Your task to perform on an android device: Clear all items from cart on walmart. Search for asus rog on walmart, select the first entry, add it to the cart, then select checkout. Image 0: 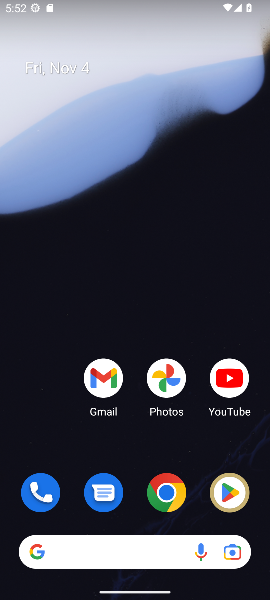
Step 0: drag from (132, 461) to (150, 55)
Your task to perform on an android device: Clear all items from cart on walmart. Search for asus rog on walmart, select the first entry, add it to the cart, then select checkout. Image 1: 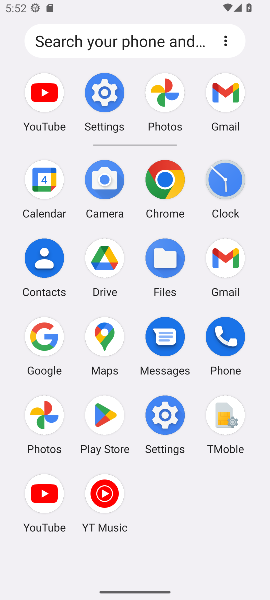
Step 1: click (163, 176)
Your task to perform on an android device: Clear all items from cart on walmart. Search for asus rog on walmart, select the first entry, add it to the cart, then select checkout. Image 2: 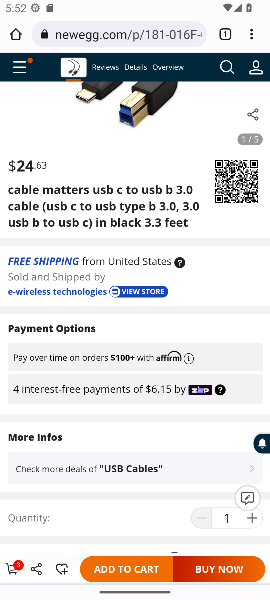
Step 2: click (123, 33)
Your task to perform on an android device: Clear all items from cart on walmart. Search for asus rog on walmart, select the first entry, add it to the cart, then select checkout. Image 3: 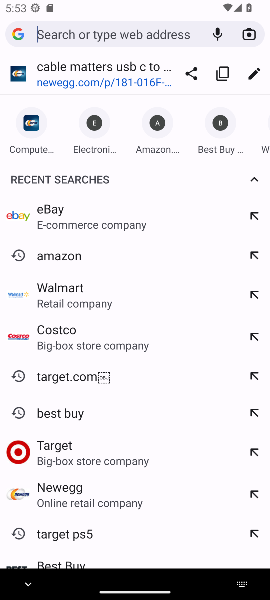
Step 3: type "walmart.com"
Your task to perform on an android device: Clear all items from cart on walmart. Search for asus rog on walmart, select the first entry, add it to the cart, then select checkout. Image 4: 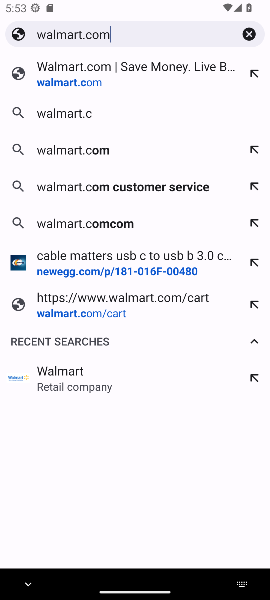
Step 4: press enter
Your task to perform on an android device: Clear all items from cart on walmart. Search for asus rog on walmart, select the first entry, add it to the cart, then select checkout. Image 5: 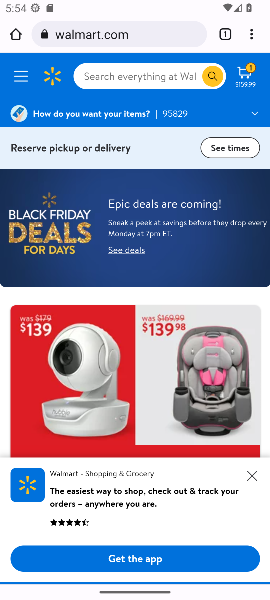
Step 5: click (248, 71)
Your task to perform on an android device: Clear all items from cart on walmart. Search for asus rog on walmart, select the first entry, add it to the cart, then select checkout. Image 6: 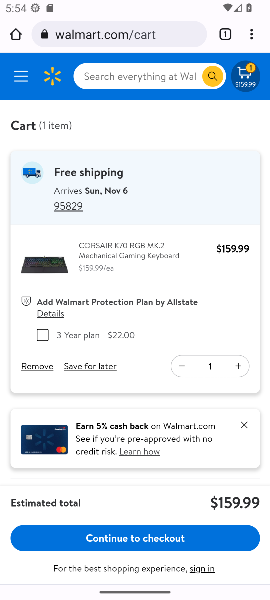
Step 6: click (35, 366)
Your task to perform on an android device: Clear all items from cart on walmart. Search for asus rog on walmart, select the first entry, add it to the cart, then select checkout. Image 7: 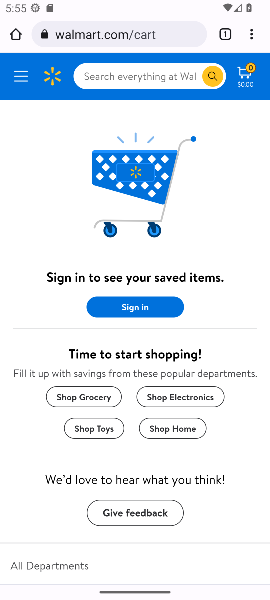
Step 7: click (131, 72)
Your task to perform on an android device: Clear all items from cart on walmart. Search for asus rog on walmart, select the first entry, add it to the cart, then select checkout. Image 8: 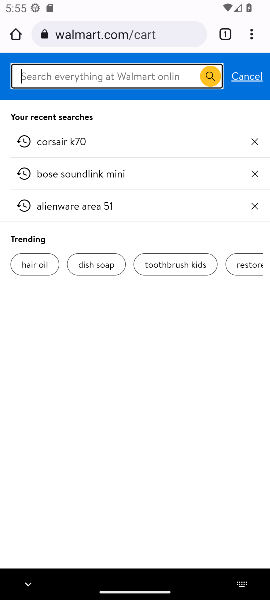
Step 8: type "asus rog"
Your task to perform on an android device: Clear all items from cart on walmart. Search for asus rog on walmart, select the first entry, add it to the cart, then select checkout. Image 9: 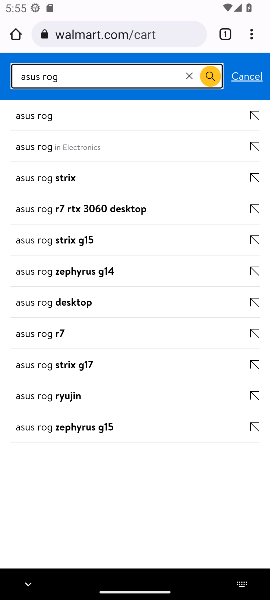
Step 9: press enter
Your task to perform on an android device: Clear all items from cart on walmart. Search for asus rog on walmart, select the first entry, add it to the cart, then select checkout. Image 10: 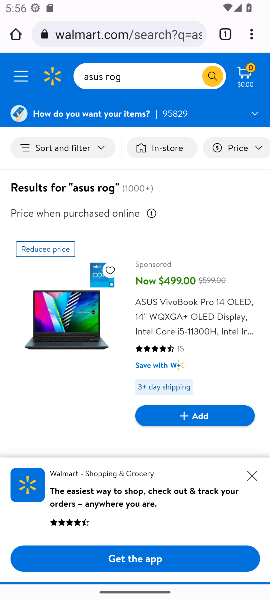
Step 10: drag from (148, 472) to (146, 112)
Your task to perform on an android device: Clear all items from cart on walmart. Search for asus rog on walmart, select the first entry, add it to the cart, then select checkout. Image 11: 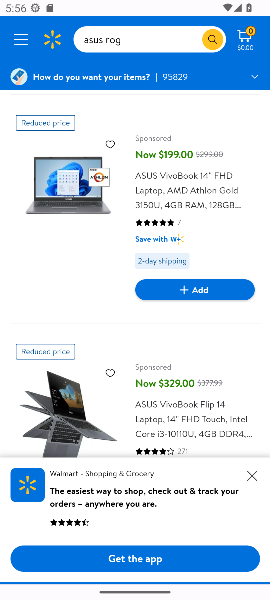
Step 11: drag from (179, 383) to (190, 127)
Your task to perform on an android device: Clear all items from cart on walmart. Search for asus rog on walmart, select the first entry, add it to the cart, then select checkout. Image 12: 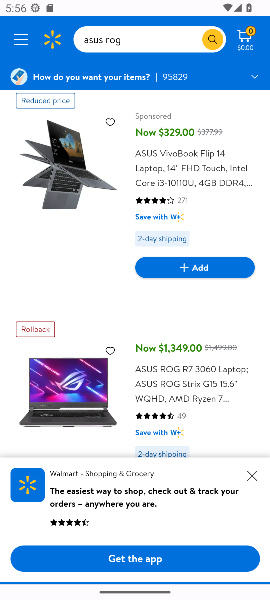
Step 12: drag from (200, 394) to (197, 240)
Your task to perform on an android device: Clear all items from cart on walmart. Search for asus rog on walmart, select the first entry, add it to the cart, then select checkout. Image 13: 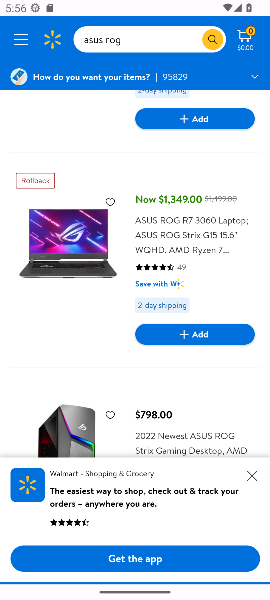
Step 13: click (184, 331)
Your task to perform on an android device: Clear all items from cart on walmart. Search for asus rog on walmart, select the first entry, add it to the cart, then select checkout. Image 14: 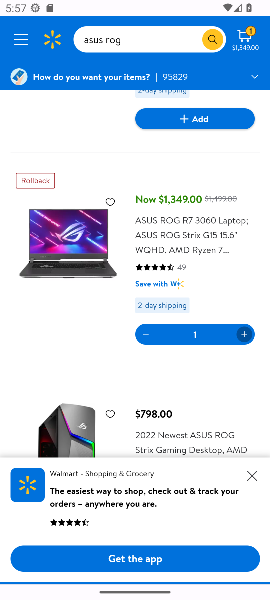
Step 14: click (246, 49)
Your task to perform on an android device: Clear all items from cart on walmart. Search for asus rog on walmart, select the first entry, add it to the cart, then select checkout. Image 15: 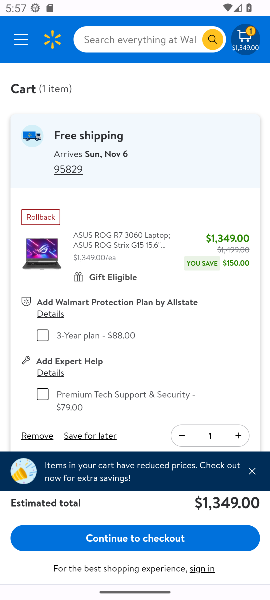
Step 15: click (178, 532)
Your task to perform on an android device: Clear all items from cart on walmart. Search for asus rog on walmart, select the first entry, add it to the cart, then select checkout. Image 16: 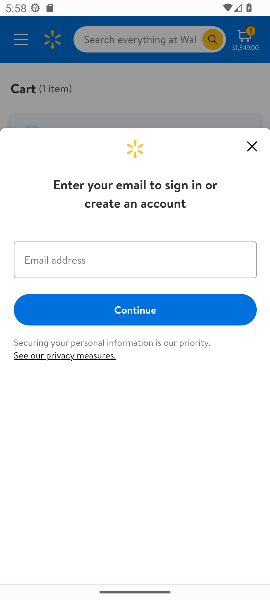
Step 16: task complete